Your task to perform on an android device: Add logitech g910 to the cart on ebay Image 0: 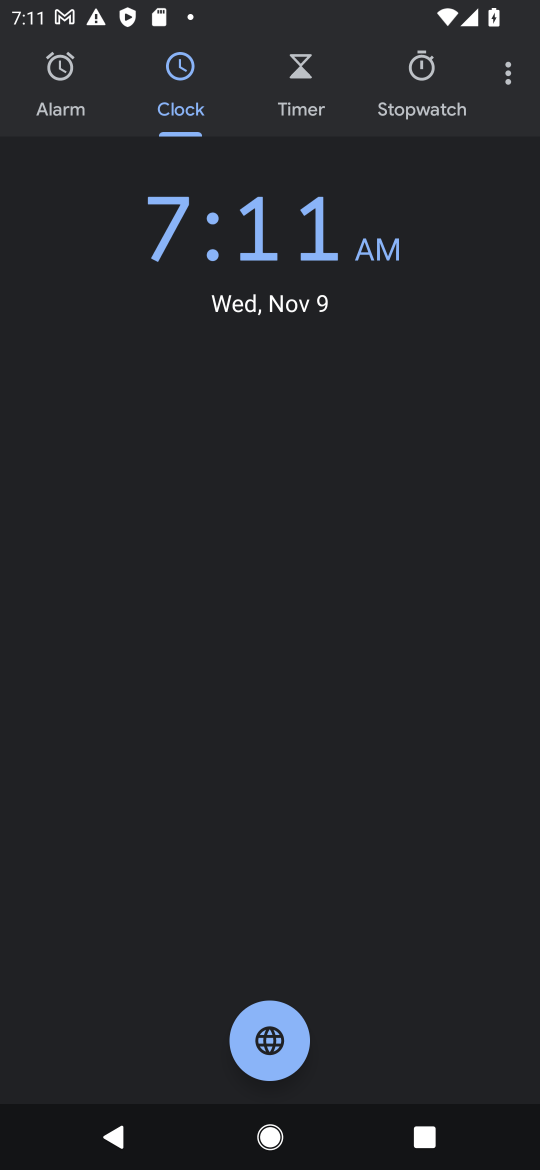
Step 0: press home button
Your task to perform on an android device: Add logitech g910 to the cart on ebay Image 1: 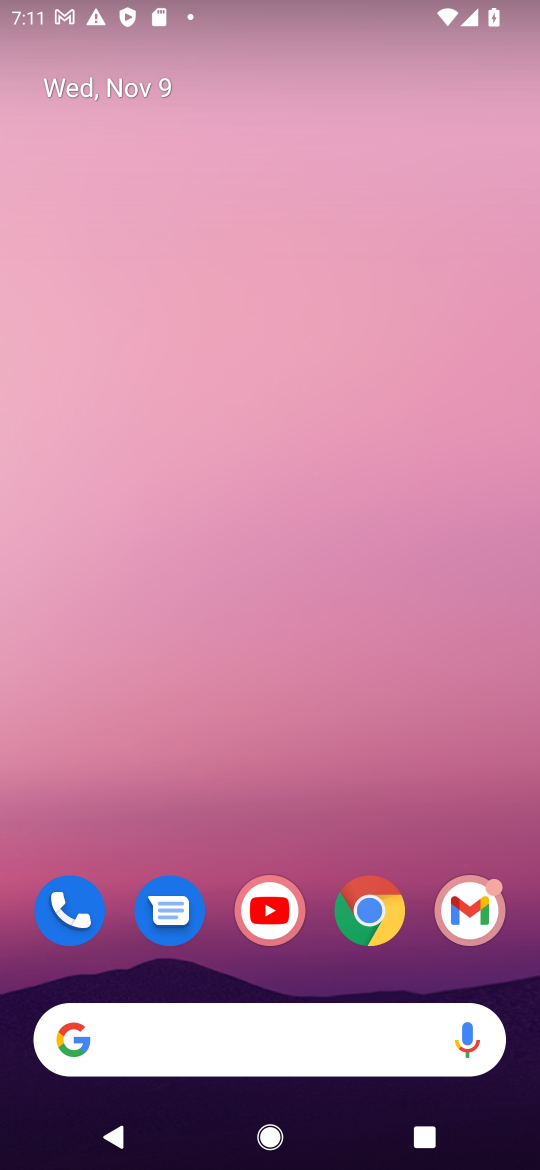
Step 1: click (367, 912)
Your task to perform on an android device: Add logitech g910 to the cart on ebay Image 2: 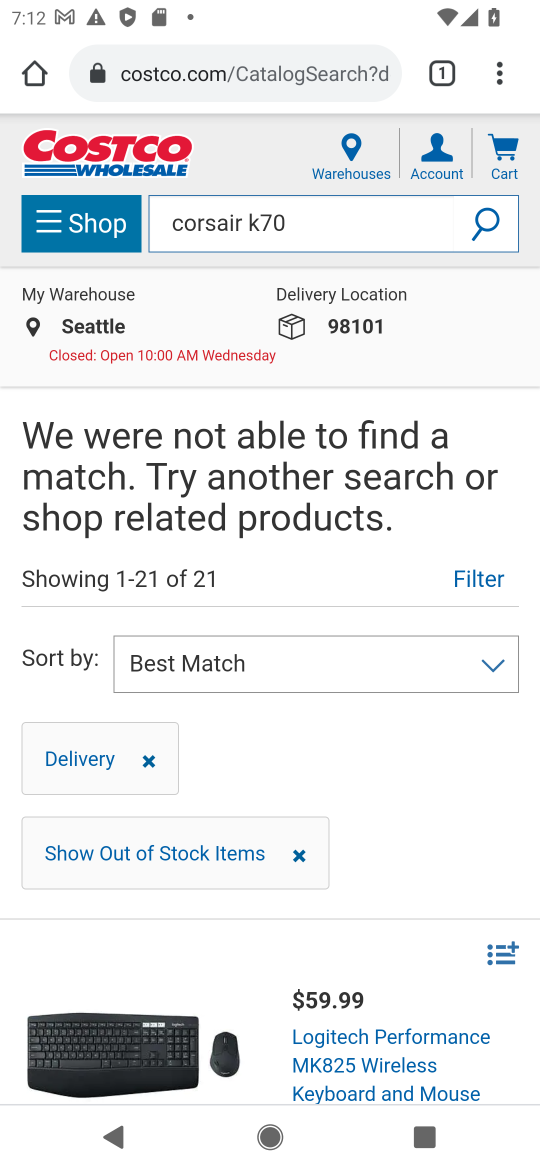
Step 2: click (197, 79)
Your task to perform on an android device: Add logitech g910 to the cart on ebay Image 3: 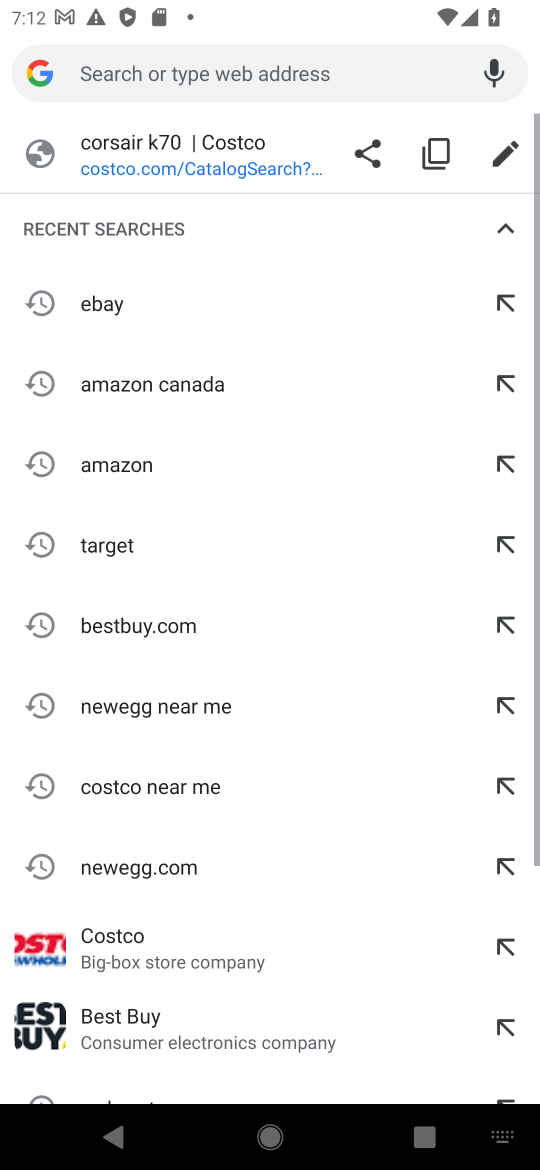
Step 3: click (98, 315)
Your task to perform on an android device: Add logitech g910 to the cart on ebay Image 4: 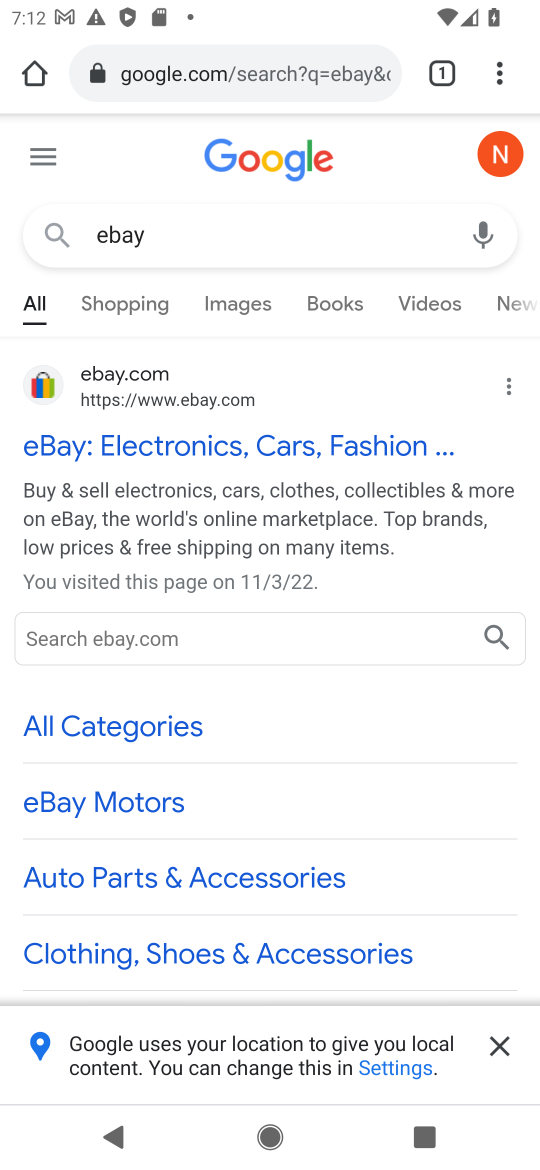
Step 4: click (154, 443)
Your task to perform on an android device: Add logitech g910 to the cart on ebay Image 5: 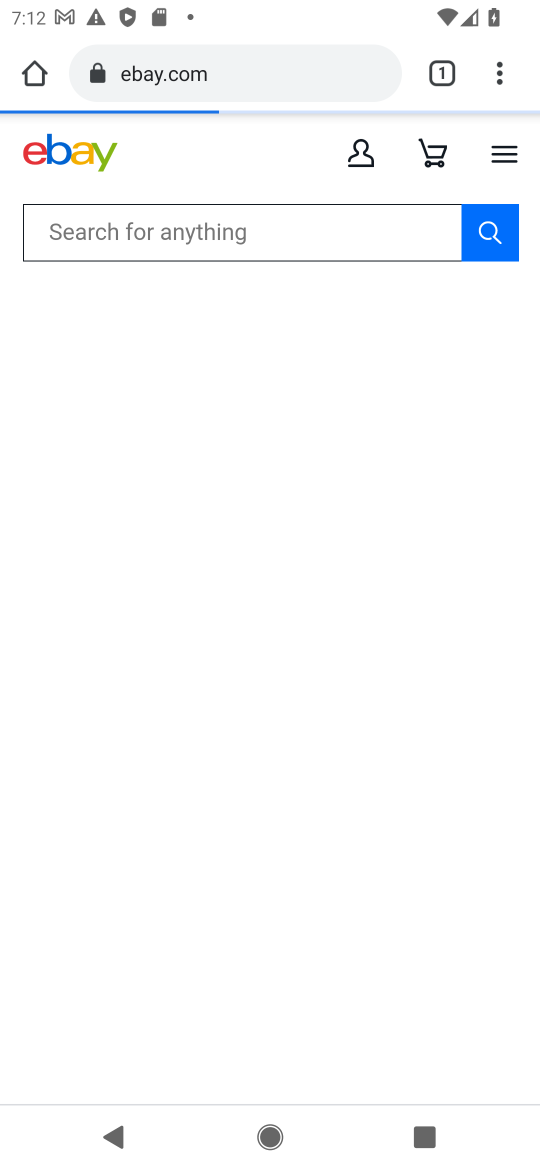
Step 5: click (145, 234)
Your task to perform on an android device: Add logitech g910 to the cart on ebay Image 6: 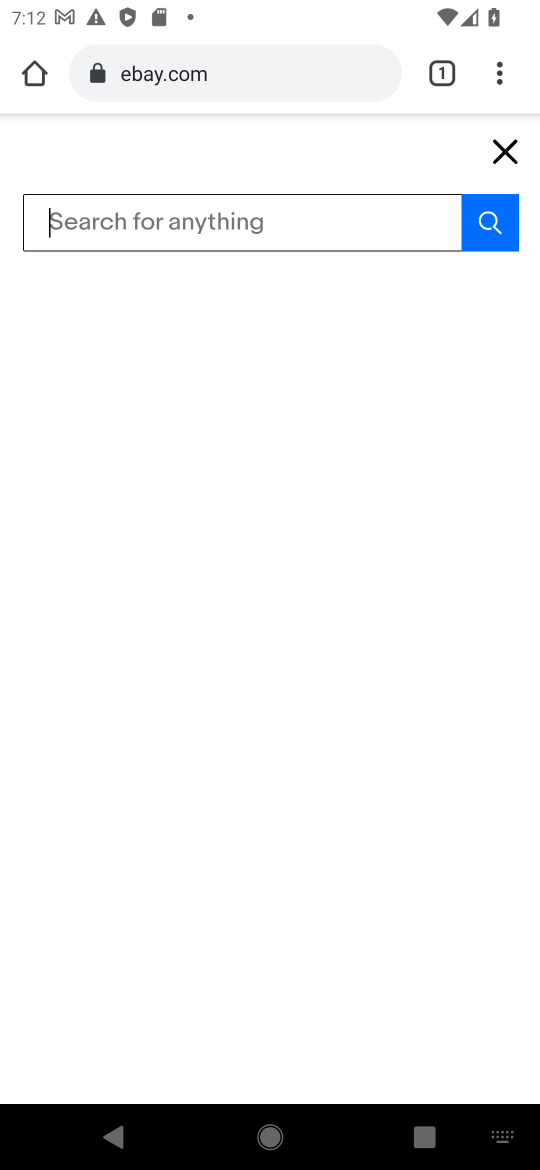
Step 6: type "logitech g910"
Your task to perform on an android device: Add logitech g910 to the cart on ebay Image 7: 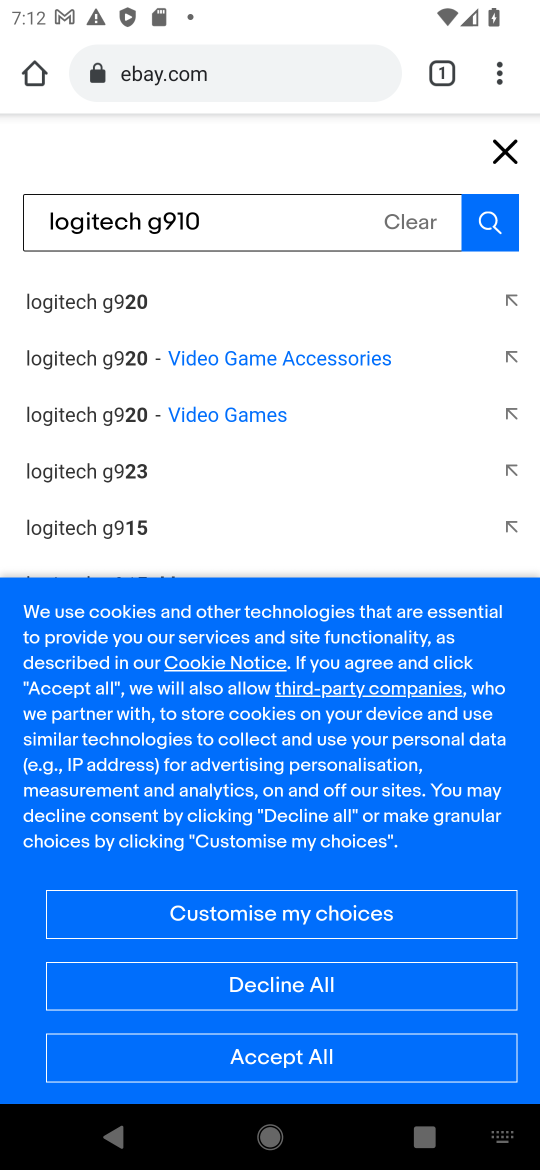
Step 7: click (480, 224)
Your task to perform on an android device: Add logitech g910 to the cart on ebay Image 8: 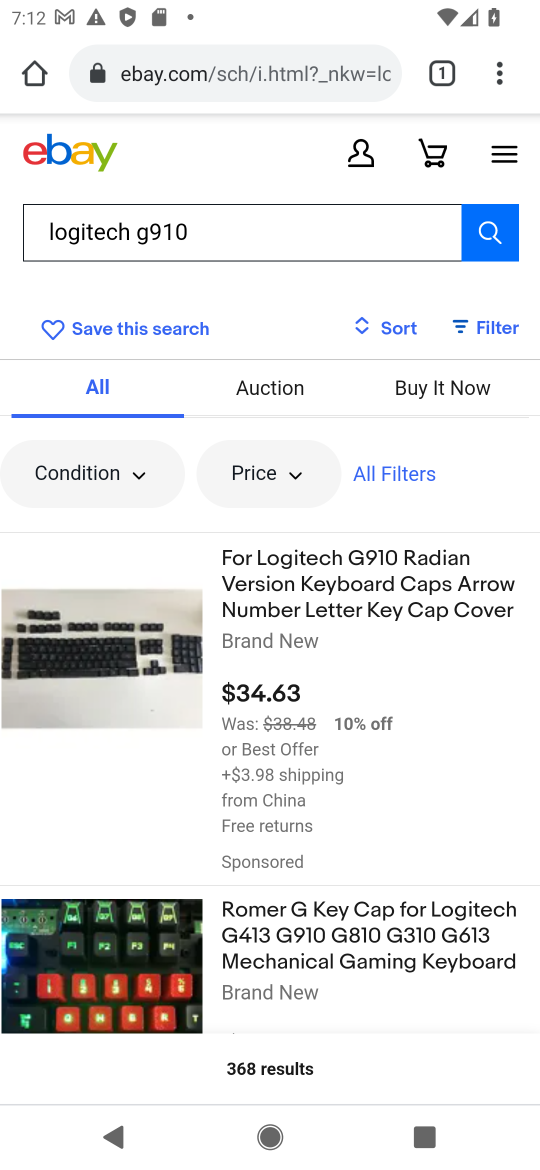
Step 8: click (167, 668)
Your task to perform on an android device: Add logitech g910 to the cart on ebay Image 9: 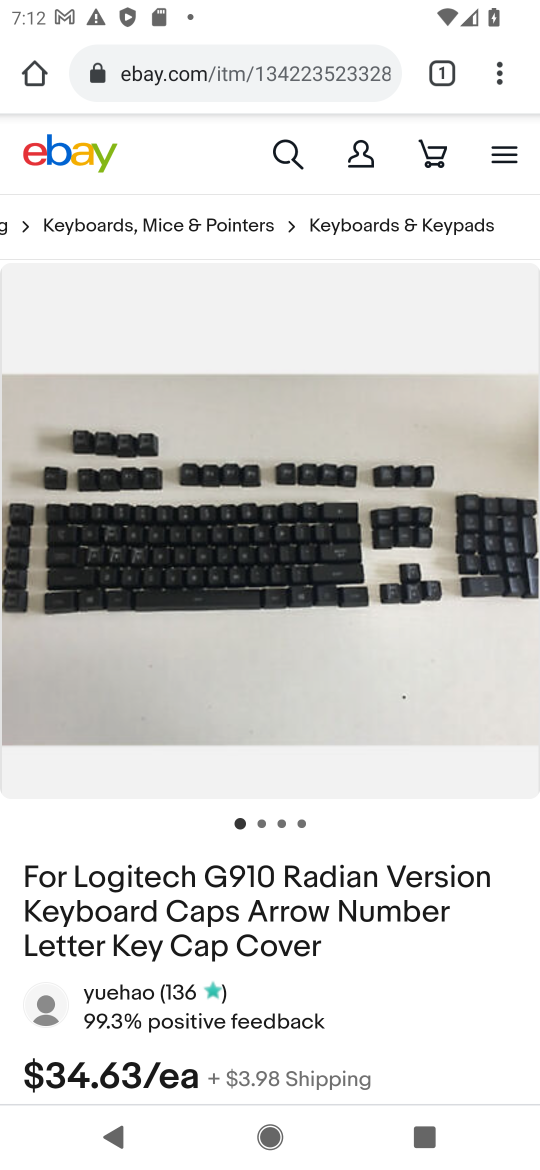
Step 9: drag from (252, 832) to (227, 415)
Your task to perform on an android device: Add logitech g910 to the cart on ebay Image 10: 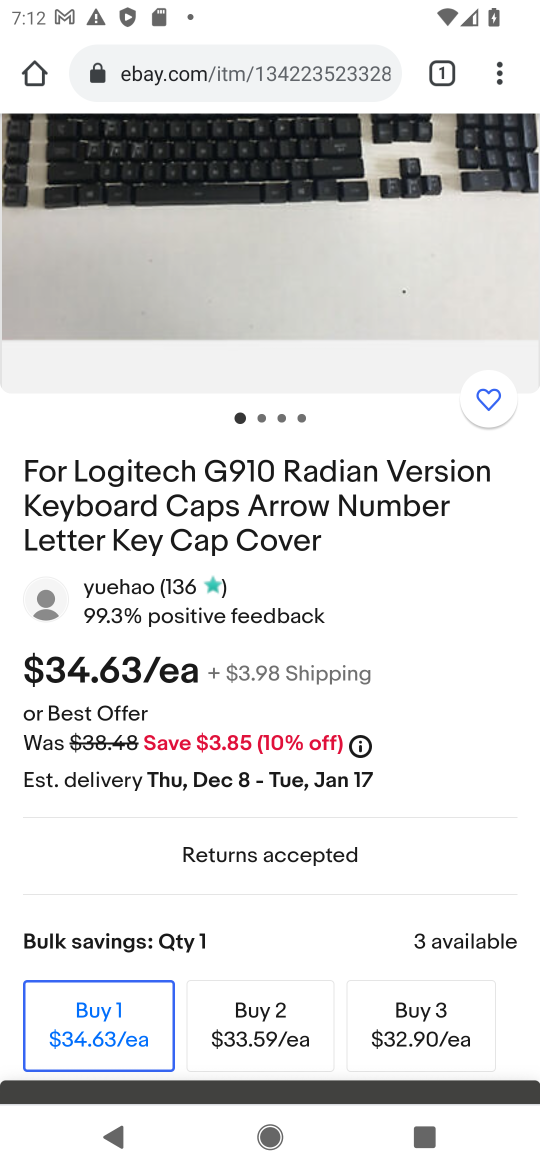
Step 10: drag from (270, 844) to (263, 419)
Your task to perform on an android device: Add logitech g910 to the cart on ebay Image 11: 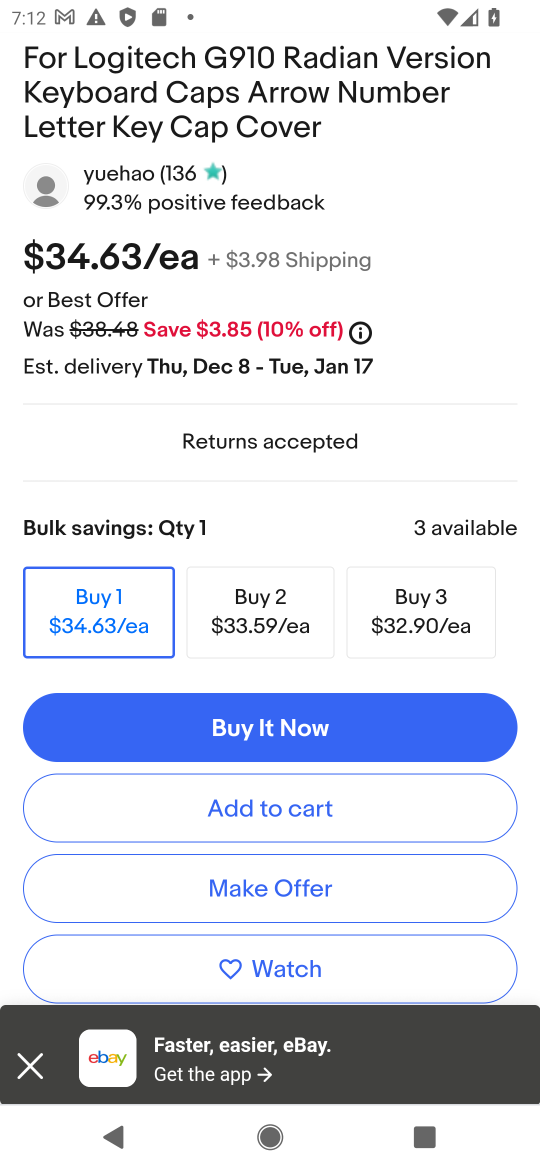
Step 11: click (245, 808)
Your task to perform on an android device: Add logitech g910 to the cart on ebay Image 12: 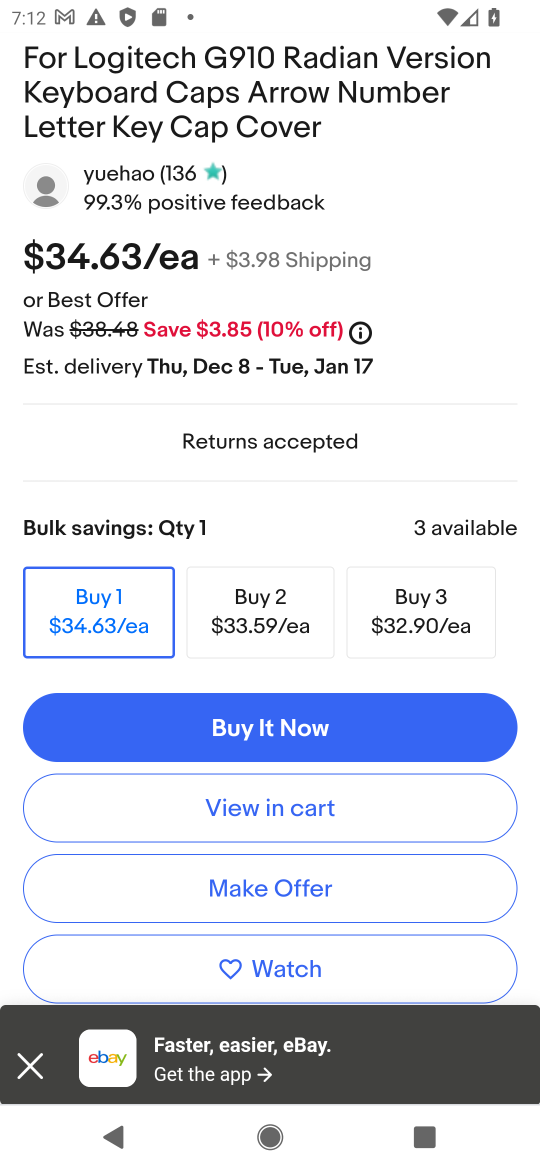
Step 12: task complete